Your task to perform on an android device: install app "File Manager" Image 0: 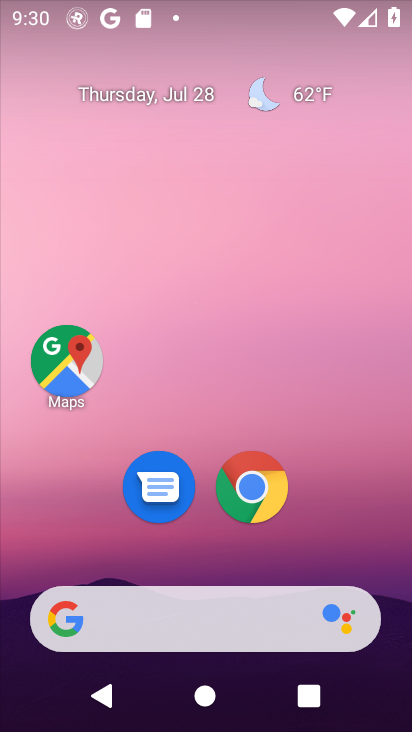
Step 0: click (274, 109)
Your task to perform on an android device: install app "File Manager" Image 1: 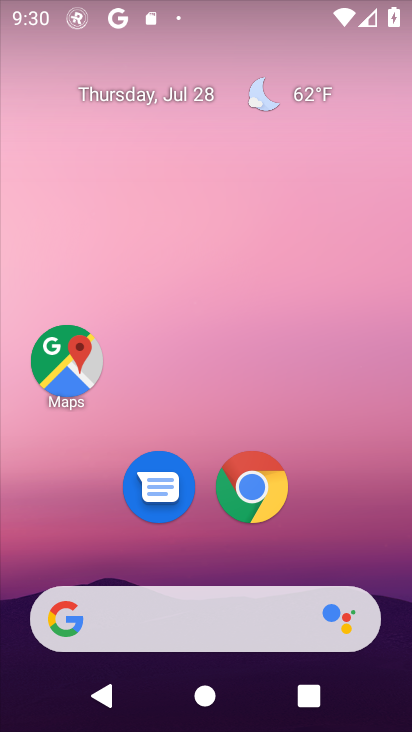
Step 1: drag from (244, 381) to (230, 2)
Your task to perform on an android device: install app "File Manager" Image 2: 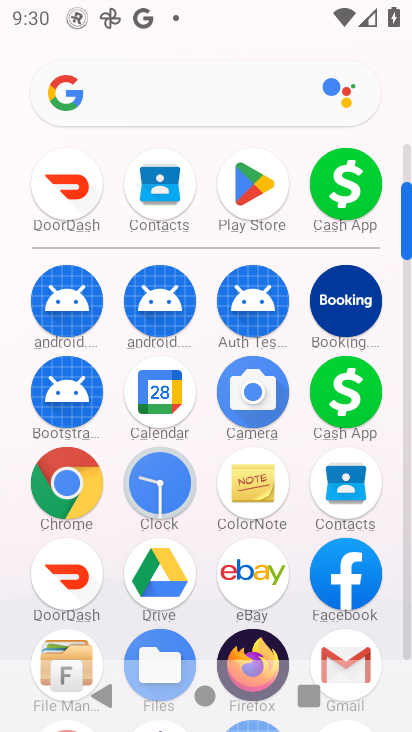
Step 2: drag from (184, 417) to (132, 94)
Your task to perform on an android device: install app "File Manager" Image 3: 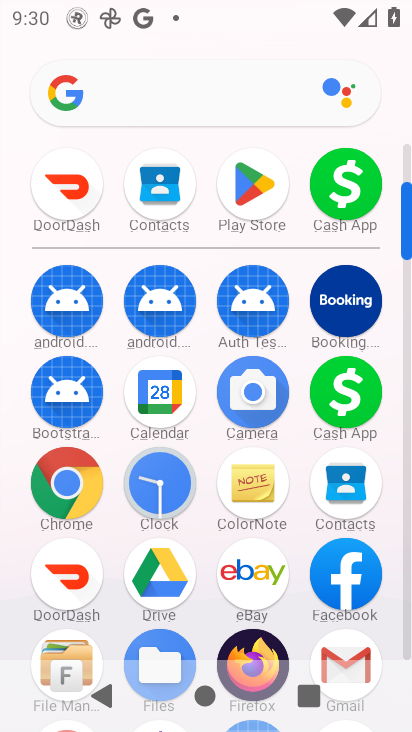
Step 3: drag from (144, 449) to (144, 242)
Your task to perform on an android device: install app "File Manager" Image 4: 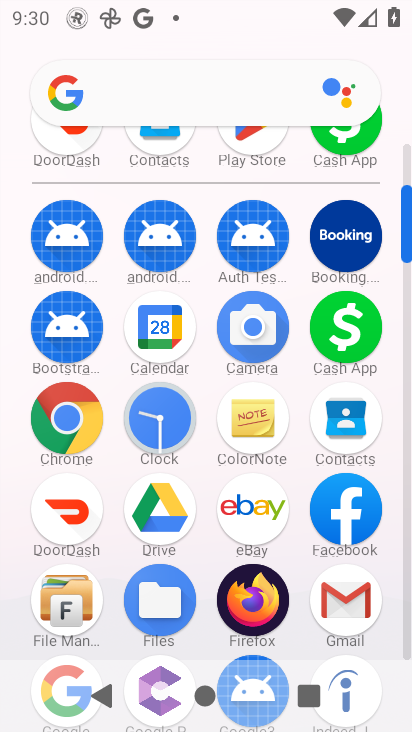
Step 4: drag from (222, 179) to (253, 500)
Your task to perform on an android device: install app "File Manager" Image 5: 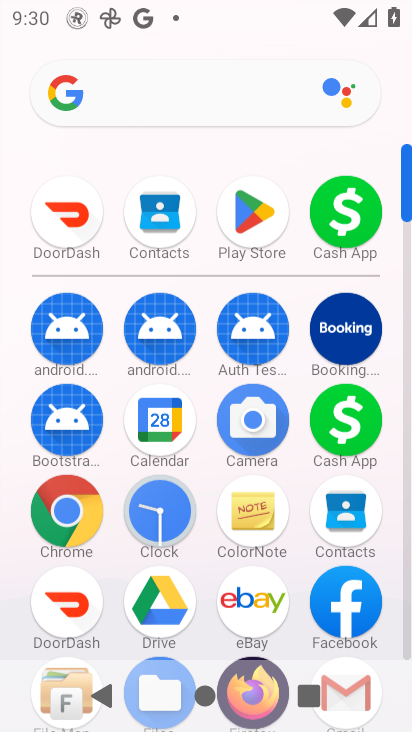
Step 5: drag from (205, 428) to (211, 509)
Your task to perform on an android device: install app "File Manager" Image 6: 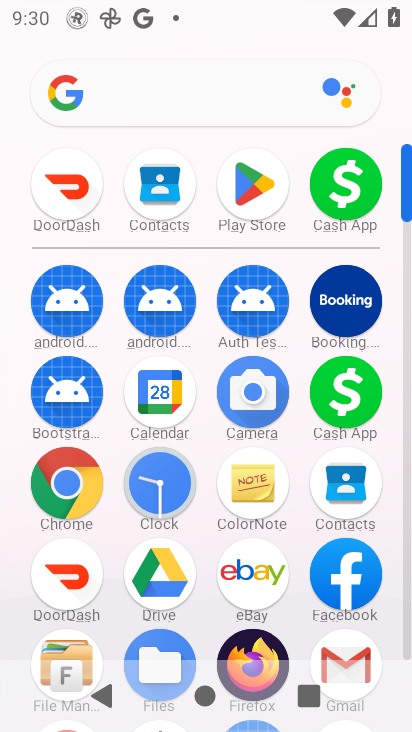
Step 6: click (249, 184)
Your task to perform on an android device: install app "File Manager" Image 7: 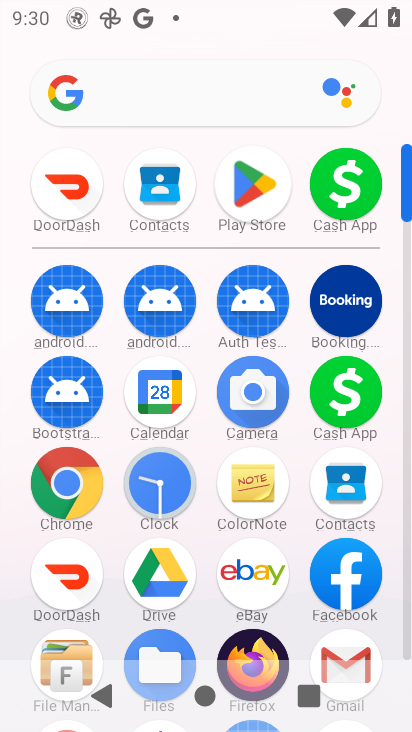
Step 7: click (250, 182)
Your task to perform on an android device: install app "File Manager" Image 8: 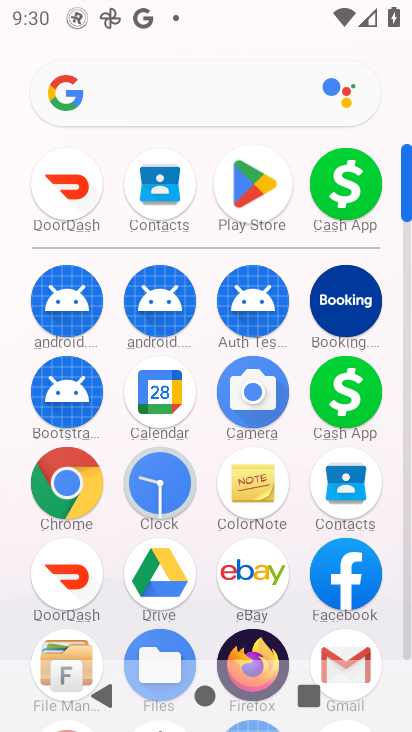
Step 8: click (252, 180)
Your task to perform on an android device: install app "File Manager" Image 9: 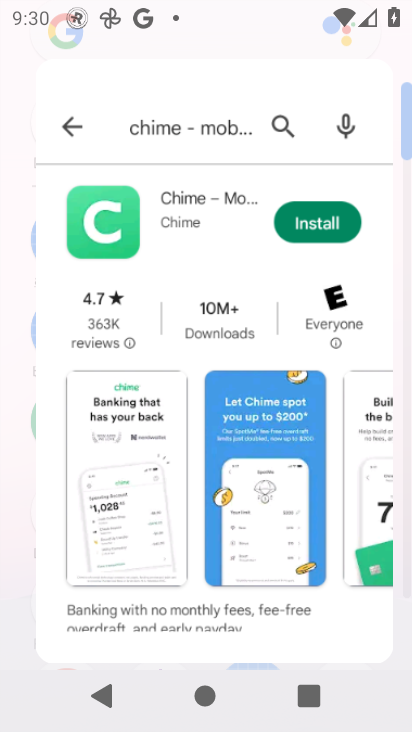
Step 9: click (255, 179)
Your task to perform on an android device: install app "File Manager" Image 10: 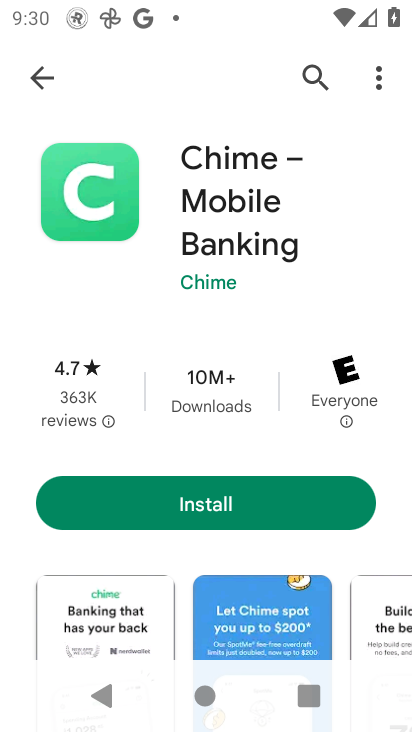
Step 10: click (27, 70)
Your task to perform on an android device: install app "File Manager" Image 11: 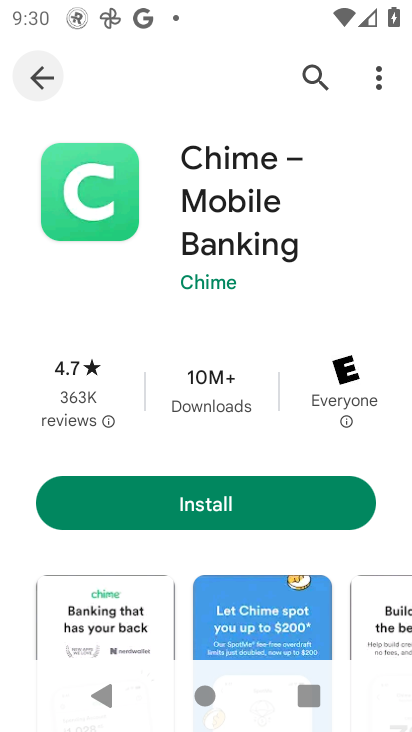
Step 11: click (29, 71)
Your task to perform on an android device: install app "File Manager" Image 12: 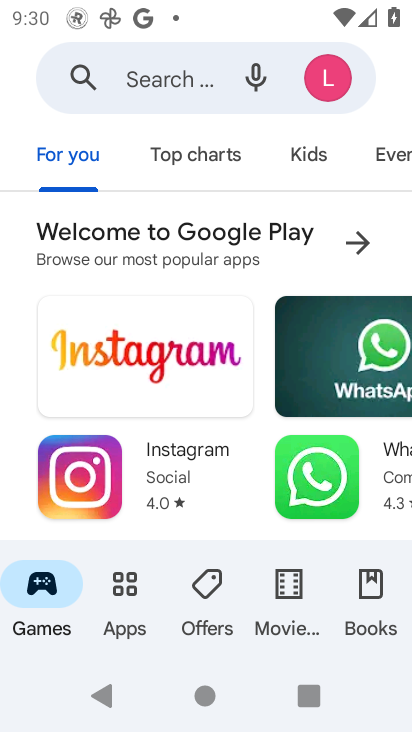
Step 12: click (124, 76)
Your task to perform on an android device: install app "File Manager" Image 13: 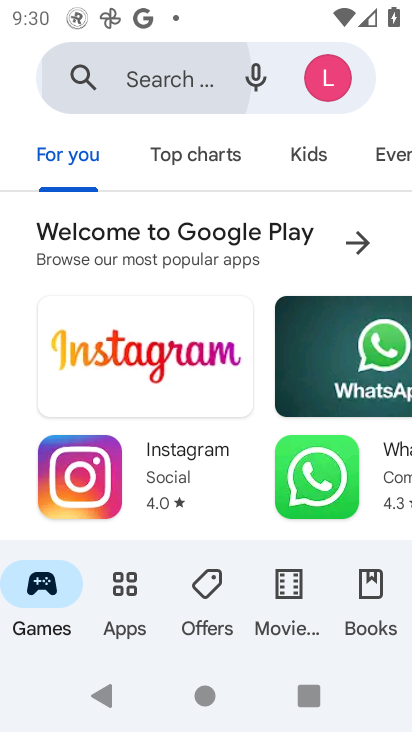
Step 13: click (125, 76)
Your task to perform on an android device: install app "File Manager" Image 14: 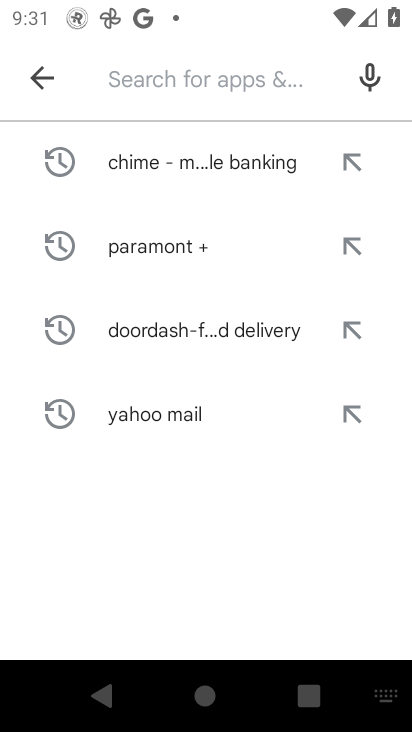
Step 14: type "File Manager"
Your task to perform on an android device: install app "File Manager" Image 15: 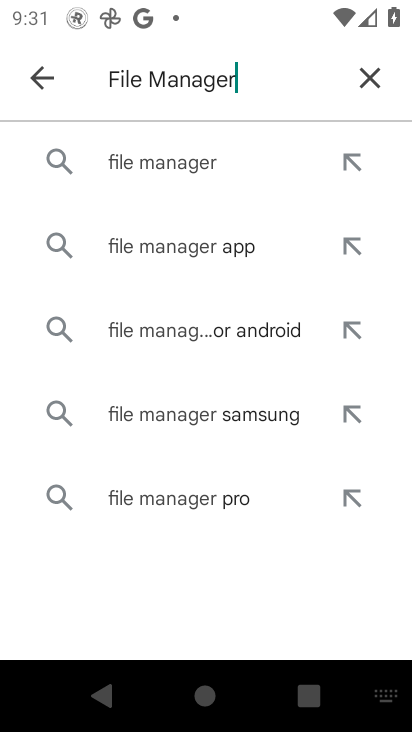
Step 15: click (174, 169)
Your task to perform on an android device: install app "File Manager" Image 16: 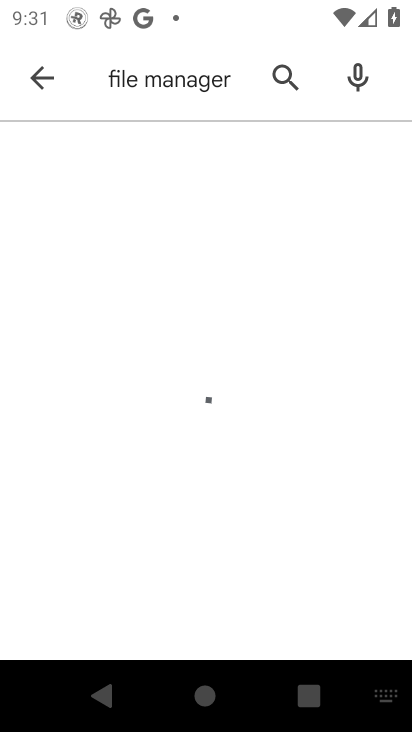
Step 16: click (177, 167)
Your task to perform on an android device: install app "File Manager" Image 17: 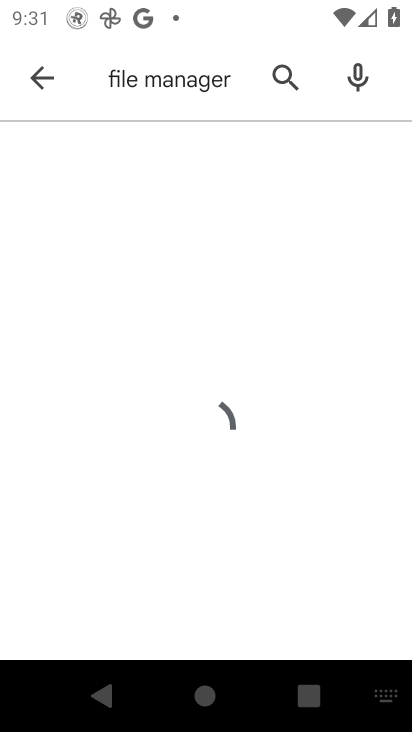
Step 17: click (178, 167)
Your task to perform on an android device: install app "File Manager" Image 18: 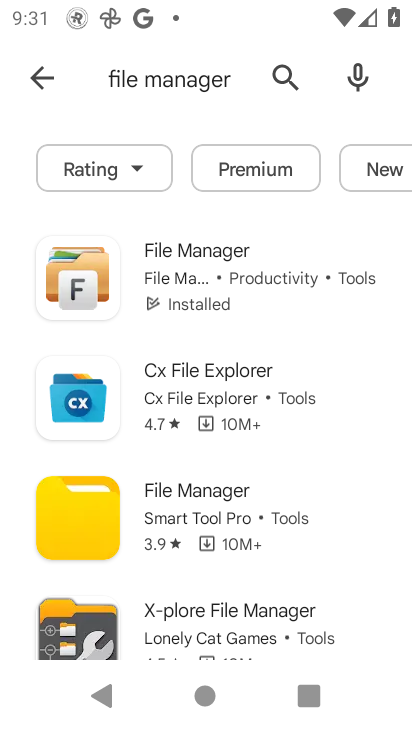
Step 18: click (191, 259)
Your task to perform on an android device: install app "File Manager" Image 19: 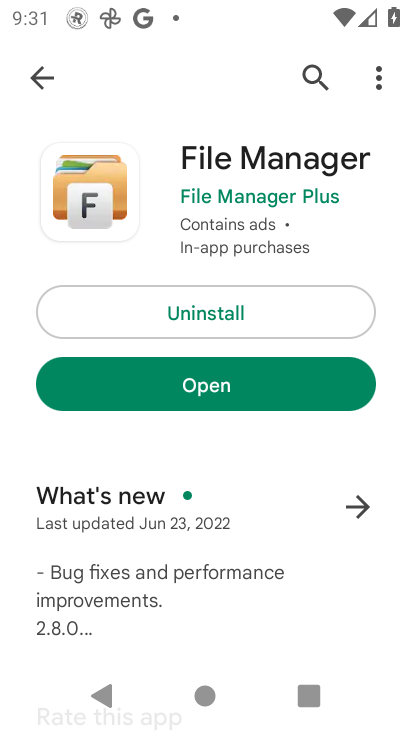
Step 19: click (214, 380)
Your task to perform on an android device: install app "File Manager" Image 20: 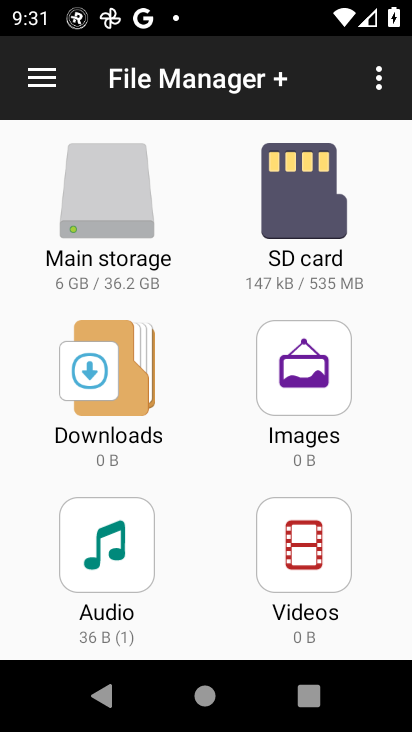
Step 20: task complete